Your task to perform on an android device: turn off location history Image 0: 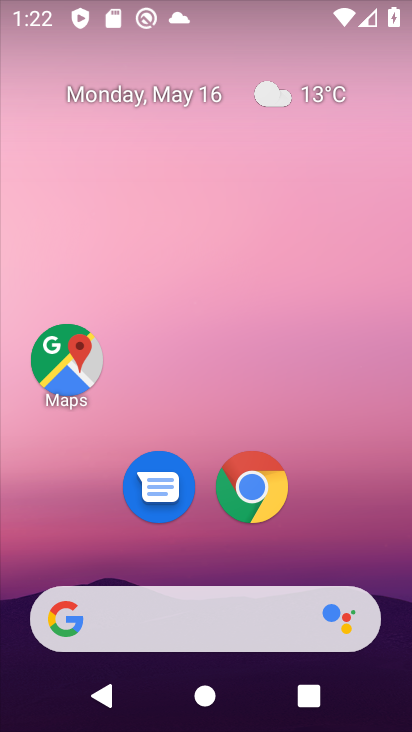
Step 0: drag from (205, 581) to (211, 173)
Your task to perform on an android device: turn off location history Image 1: 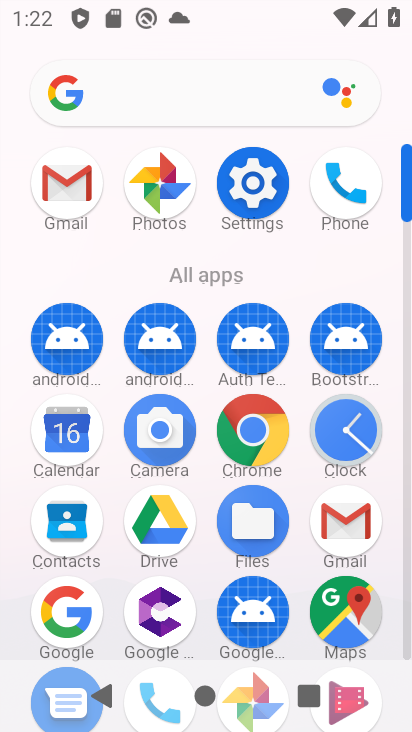
Step 1: click (262, 192)
Your task to perform on an android device: turn off location history Image 2: 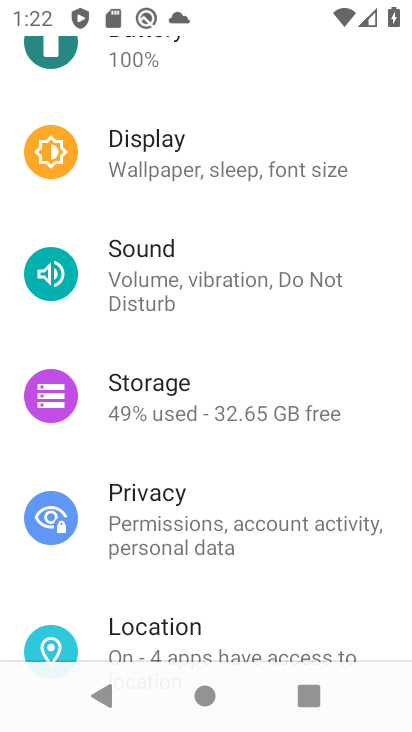
Step 2: click (128, 635)
Your task to perform on an android device: turn off location history Image 3: 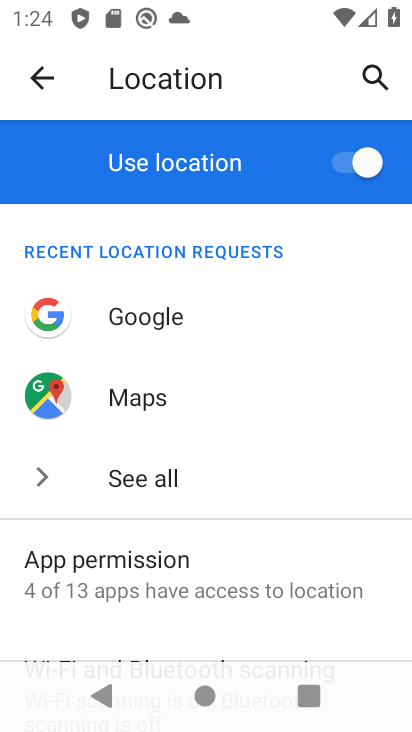
Step 3: drag from (140, 622) to (359, 26)
Your task to perform on an android device: turn off location history Image 4: 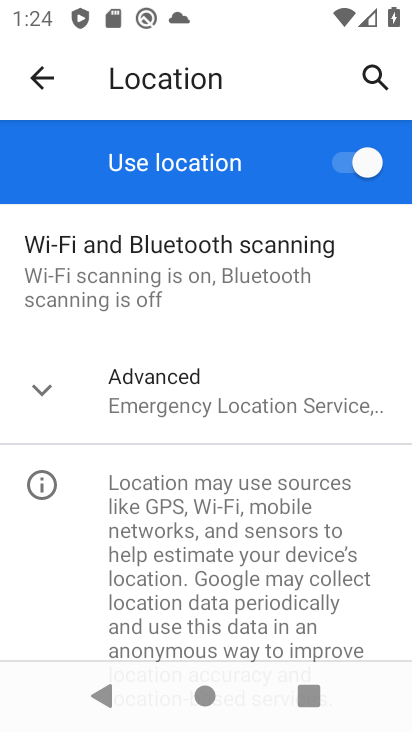
Step 4: click (213, 403)
Your task to perform on an android device: turn off location history Image 5: 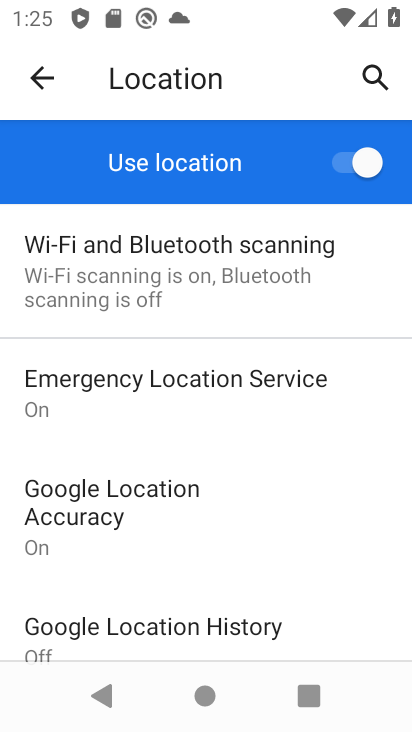
Step 5: task complete